Your task to perform on an android device: Open the stopwatch Image 0: 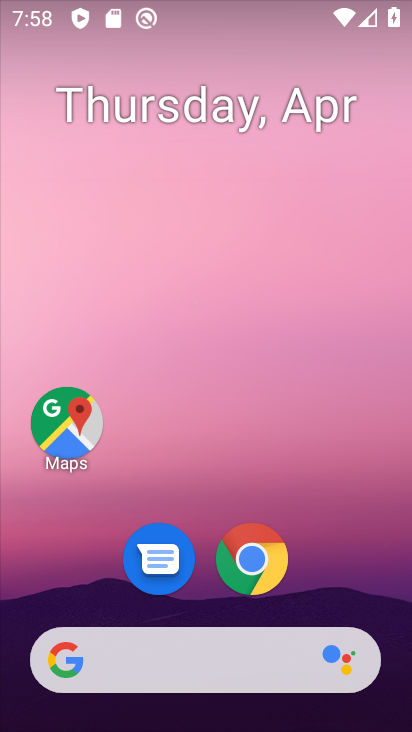
Step 0: click (83, 0)
Your task to perform on an android device: Open the stopwatch Image 1: 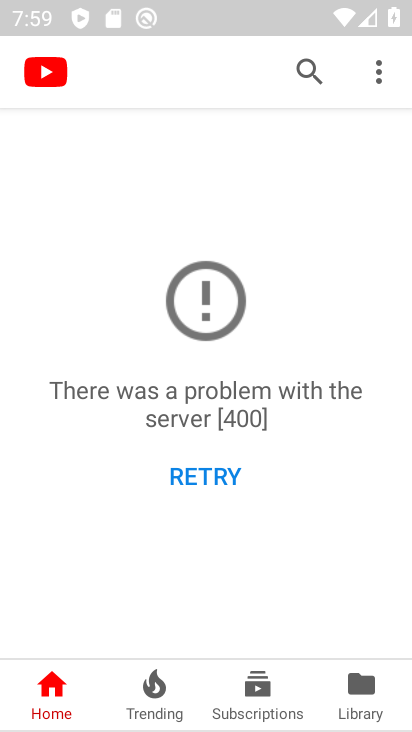
Step 1: press home button
Your task to perform on an android device: Open the stopwatch Image 2: 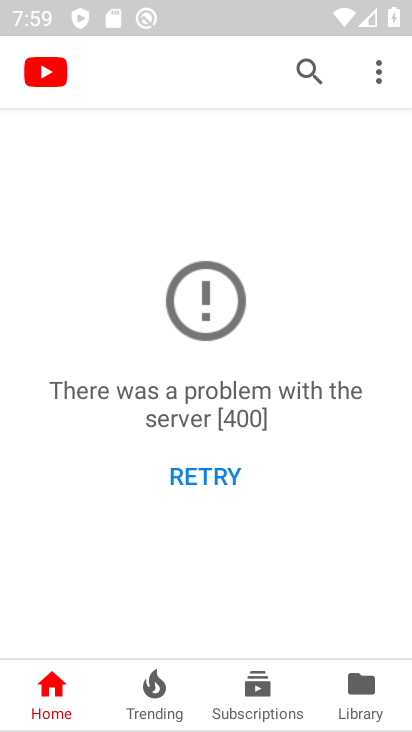
Step 2: press home button
Your task to perform on an android device: Open the stopwatch Image 3: 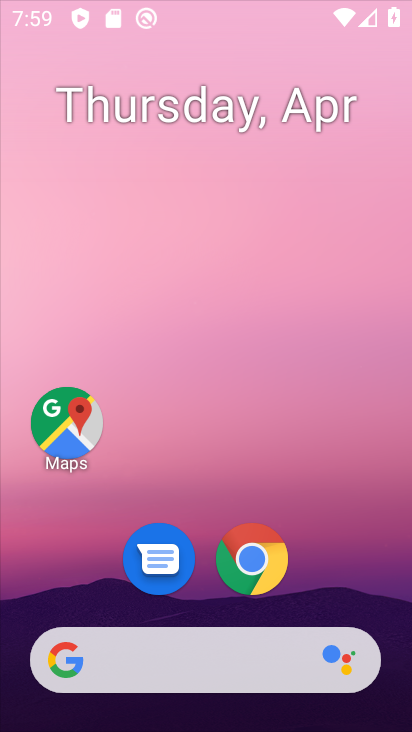
Step 3: press home button
Your task to perform on an android device: Open the stopwatch Image 4: 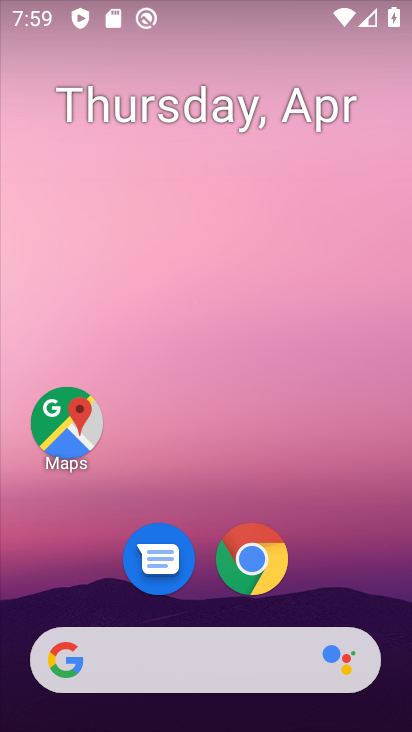
Step 4: press home button
Your task to perform on an android device: Open the stopwatch Image 5: 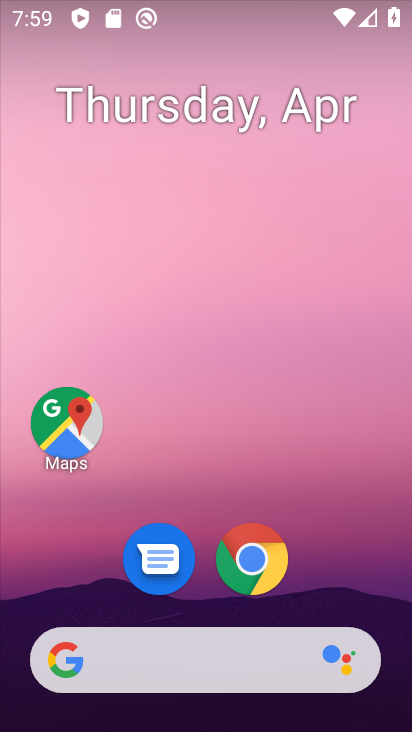
Step 5: press home button
Your task to perform on an android device: Open the stopwatch Image 6: 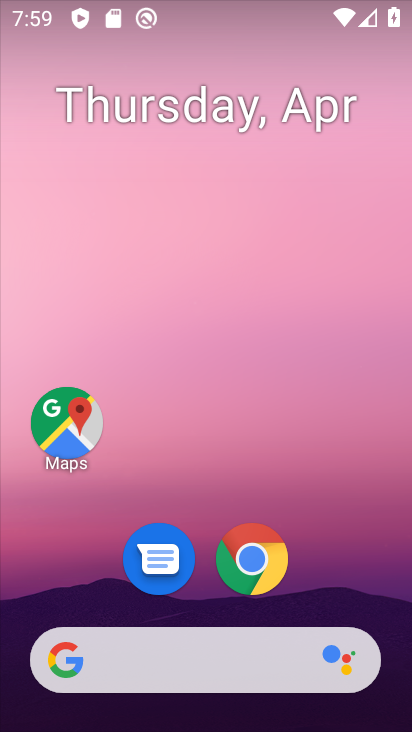
Step 6: press home button
Your task to perform on an android device: Open the stopwatch Image 7: 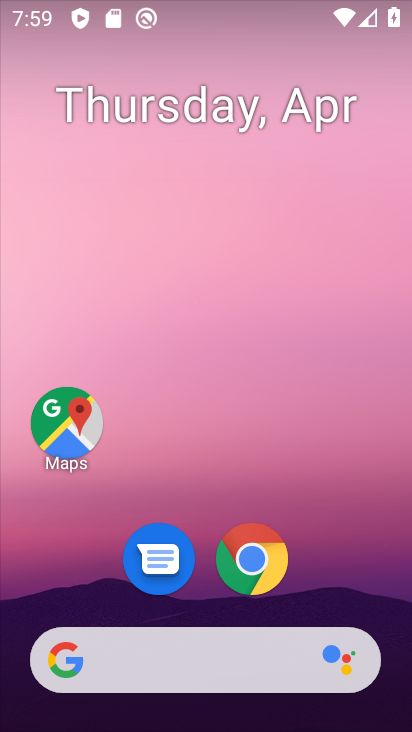
Step 7: press home button
Your task to perform on an android device: Open the stopwatch Image 8: 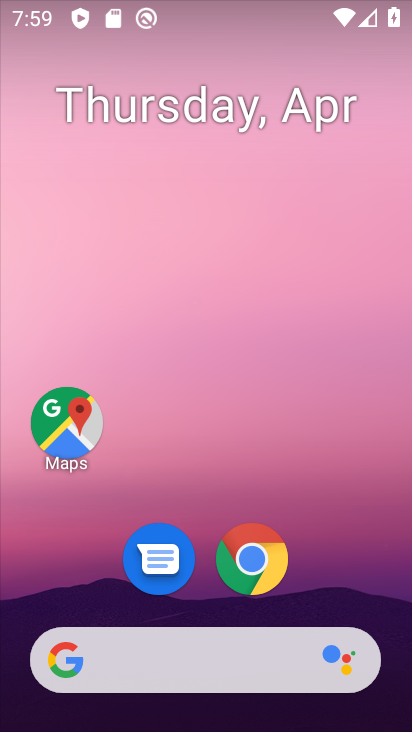
Step 8: drag from (260, 708) to (186, 125)
Your task to perform on an android device: Open the stopwatch Image 9: 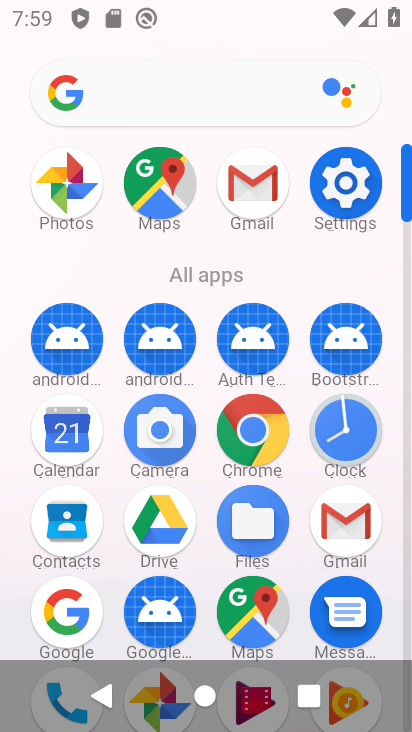
Step 9: drag from (169, 538) to (117, 73)
Your task to perform on an android device: Open the stopwatch Image 10: 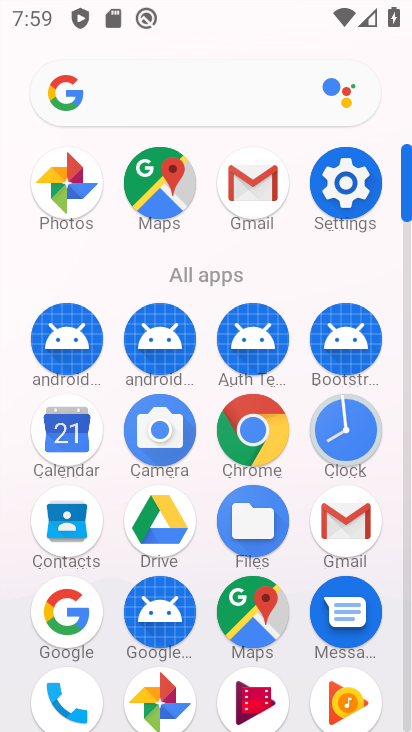
Step 10: click (349, 447)
Your task to perform on an android device: Open the stopwatch Image 11: 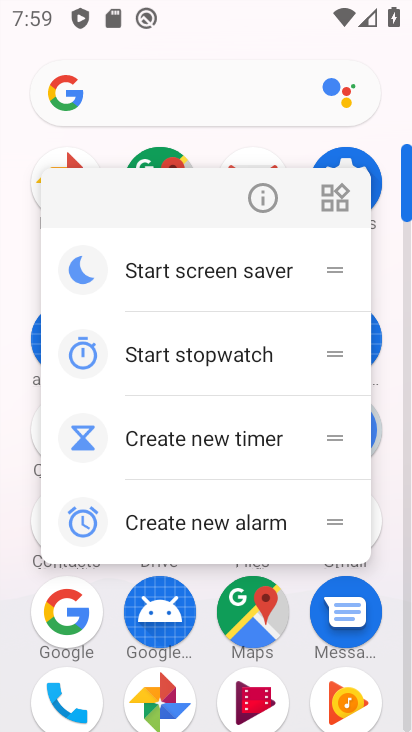
Step 11: click (377, 267)
Your task to perform on an android device: Open the stopwatch Image 12: 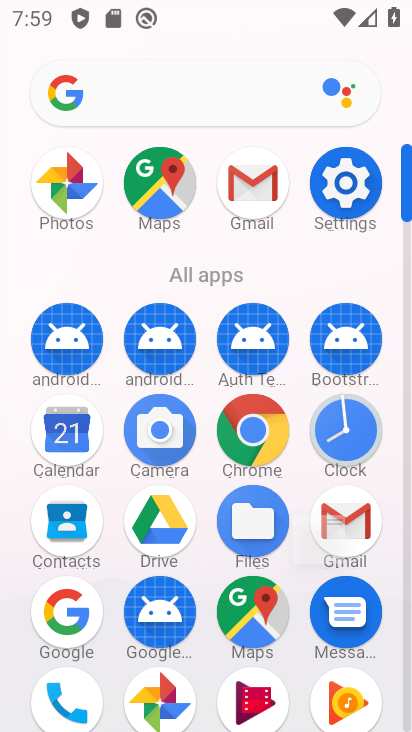
Step 12: click (377, 267)
Your task to perform on an android device: Open the stopwatch Image 13: 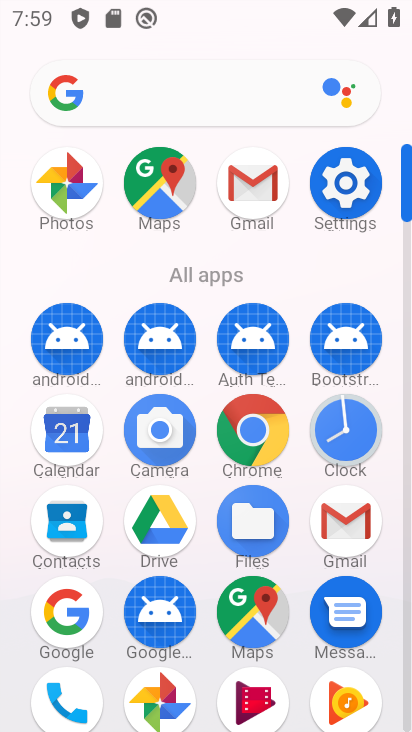
Step 13: click (362, 437)
Your task to perform on an android device: Open the stopwatch Image 14: 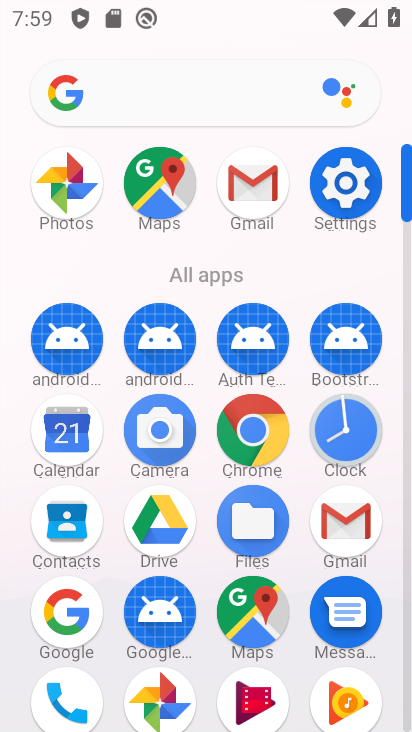
Step 14: click (363, 434)
Your task to perform on an android device: Open the stopwatch Image 15: 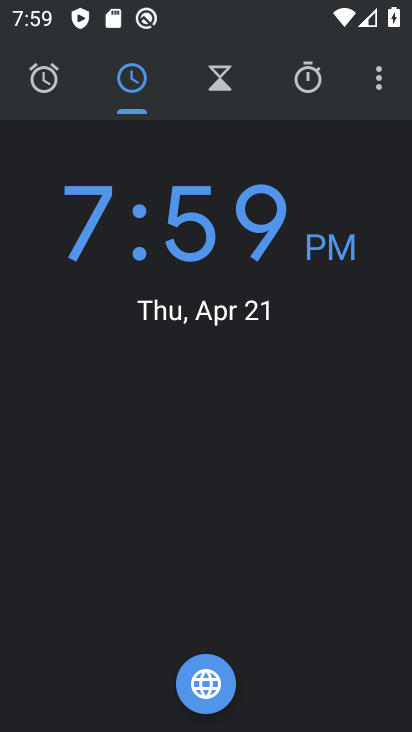
Step 15: click (306, 87)
Your task to perform on an android device: Open the stopwatch Image 16: 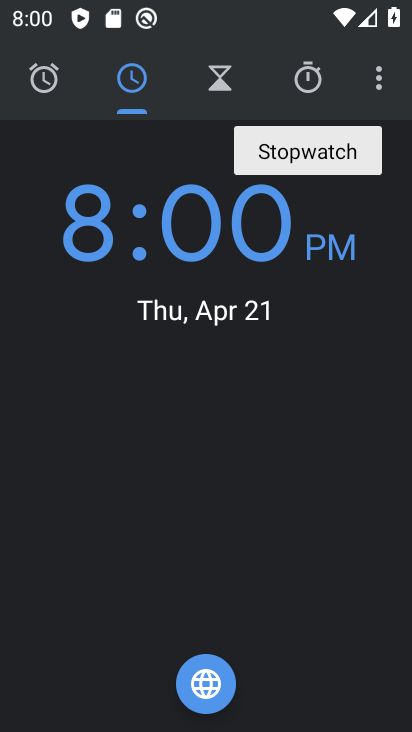
Step 16: click (315, 87)
Your task to perform on an android device: Open the stopwatch Image 17: 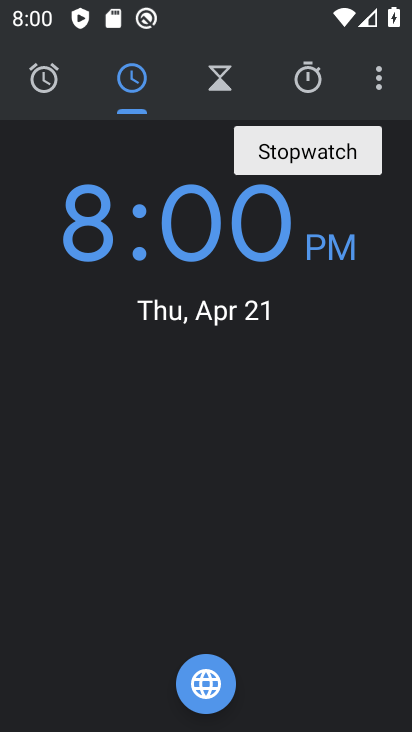
Step 17: click (315, 87)
Your task to perform on an android device: Open the stopwatch Image 18: 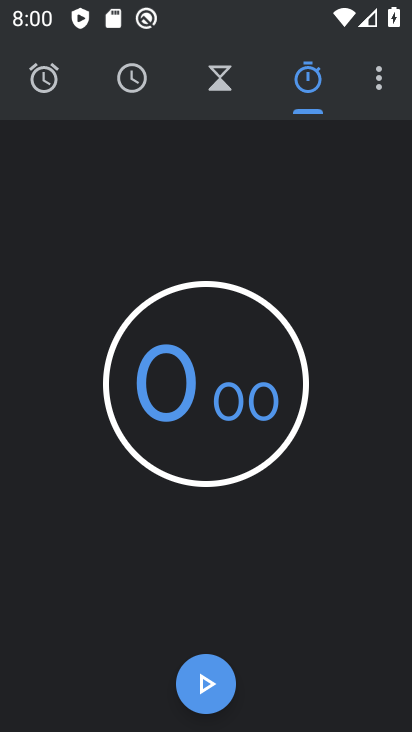
Step 18: click (211, 686)
Your task to perform on an android device: Open the stopwatch Image 19: 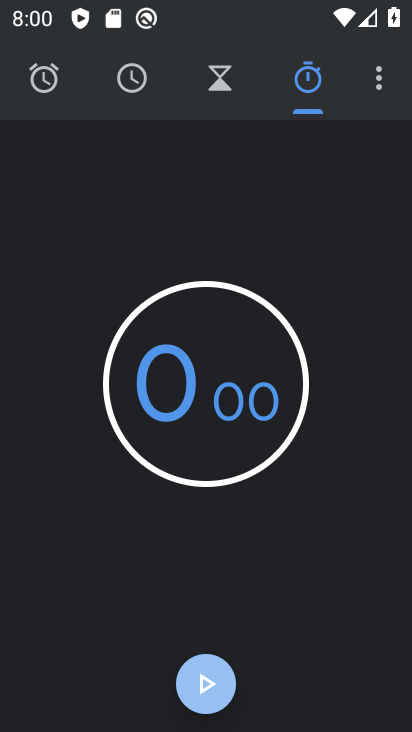
Step 19: click (211, 686)
Your task to perform on an android device: Open the stopwatch Image 20: 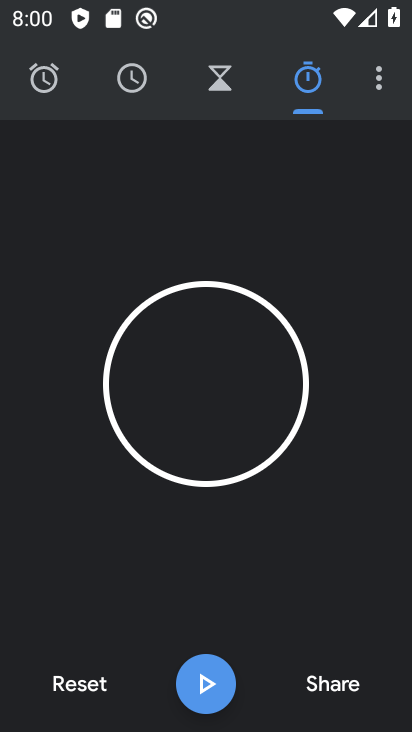
Step 20: click (205, 681)
Your task to perform on an android device: Open the stopwatch Image 21: 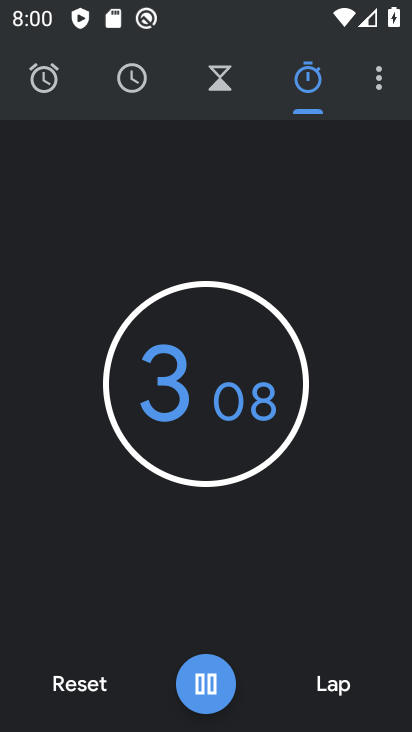
Step 21: click (203, 679)
Your task to perform on an android device: Open the stopwatch Image 22: 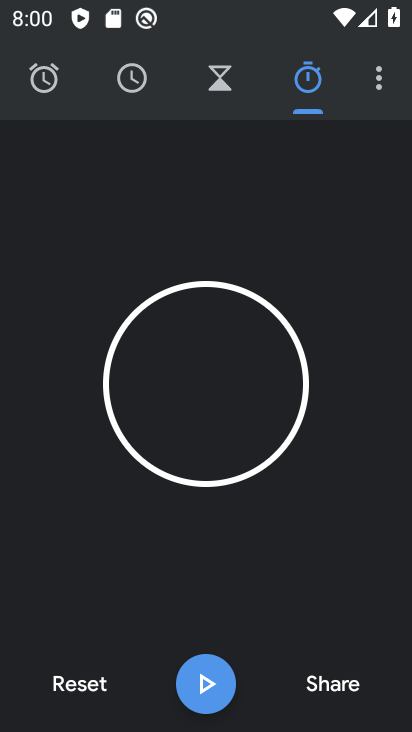
Step 22: press home button
Your task to perform on an android device: Open the stopwatch Image 23: 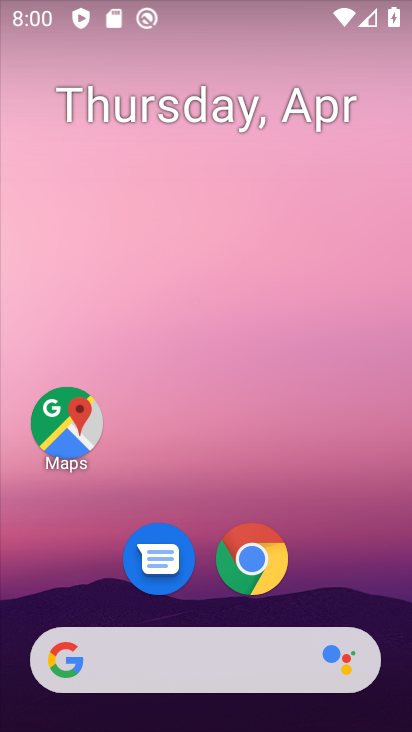
Step 23: drag from (301, 669) to (118, 95)
Your task to perform on an android device: Open the stopwatch Image 24: 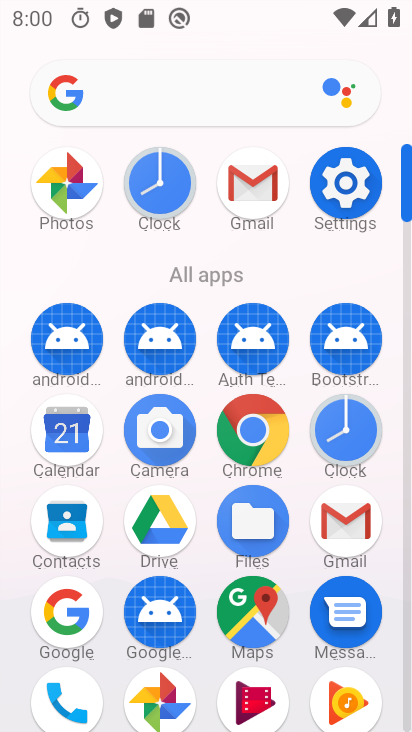
Step 24: drag from (261, 645) to (220, 41)
Your task to perform on an android device: Open the stopwatch Image 25: 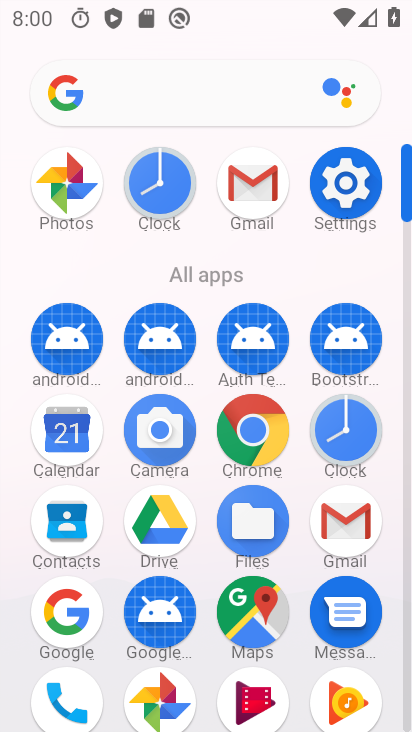
Step 25: click (330, 432)
Your task to perform on an android device: Open the stopwatch Image 26: 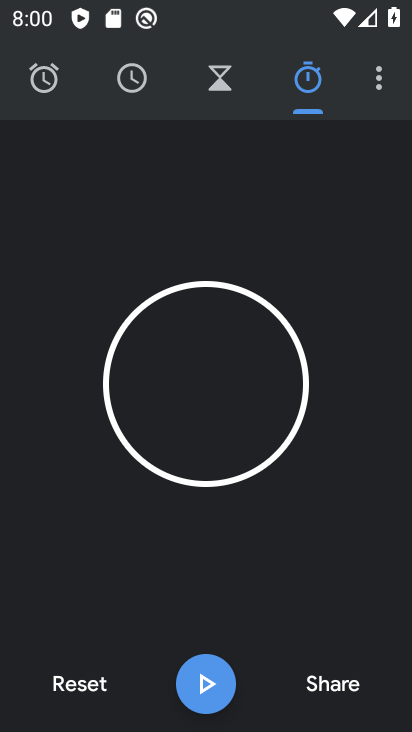
Step 26: click (206, 686)
Your task to perform on an android device: Open the stopwatch Image 27: 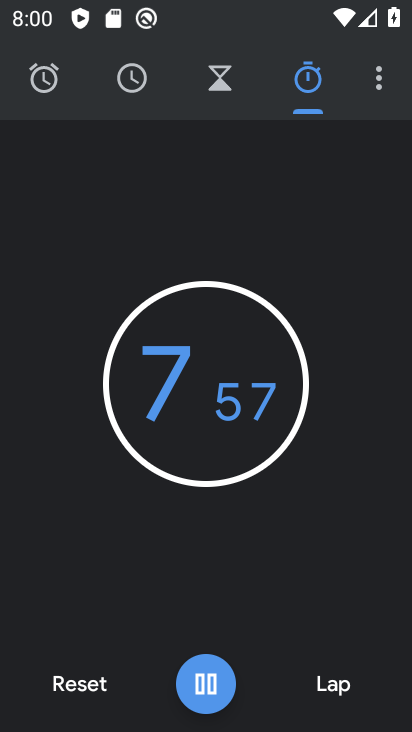
Step 27: click (196, 683)
Your task to perform on an android device: Open the stopwatch Image 28: 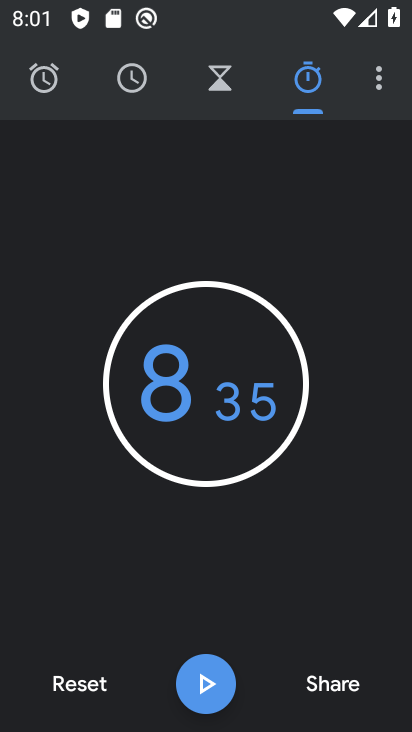
Step 28: task complete